Your task to perform on an android device: turn on javascript in the chrome app Image 0: 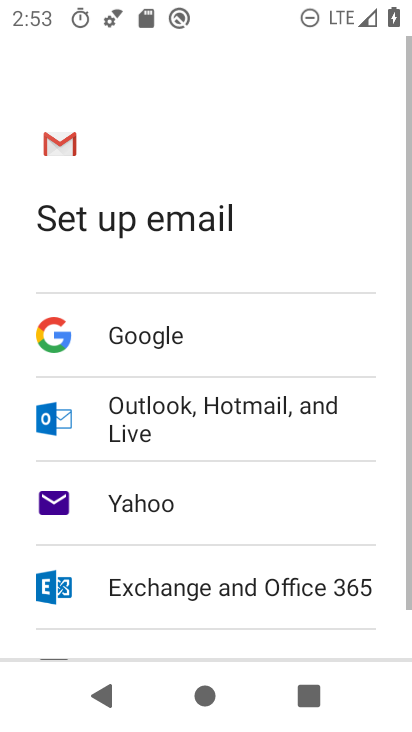
Step 0: press home button
Your task to perform on an android device: turn on javascript in the chrome app Image 1: 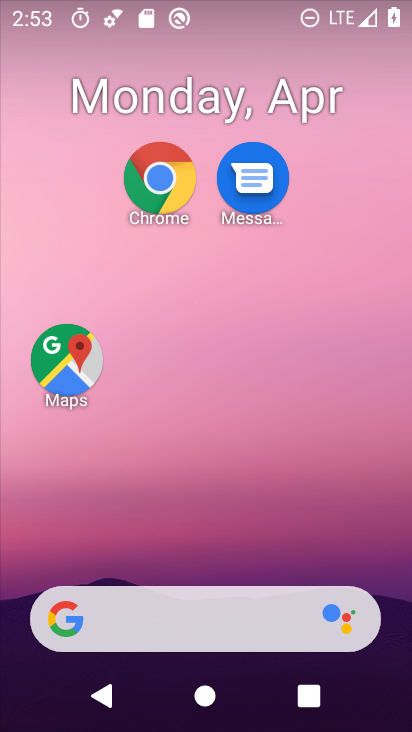
Step 1: drag from (313, 499) to (321, 78)
Your task to perform on an android device: turn on javascript in the chrome app Image 2: 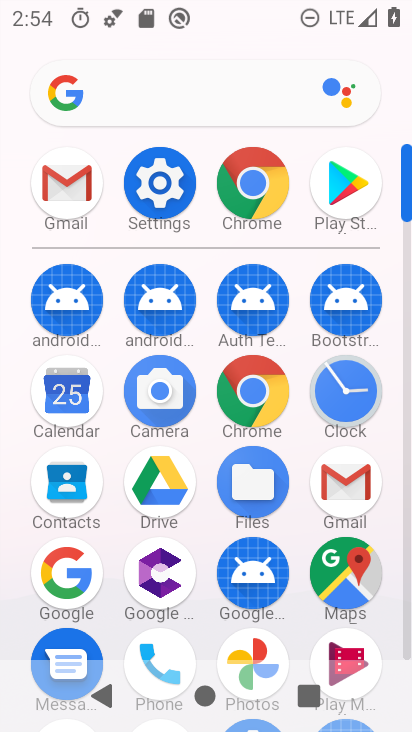
Step 2: click (261, 392)
Your task to perform on an android device: turn on javascript in the chrome app Image 3: 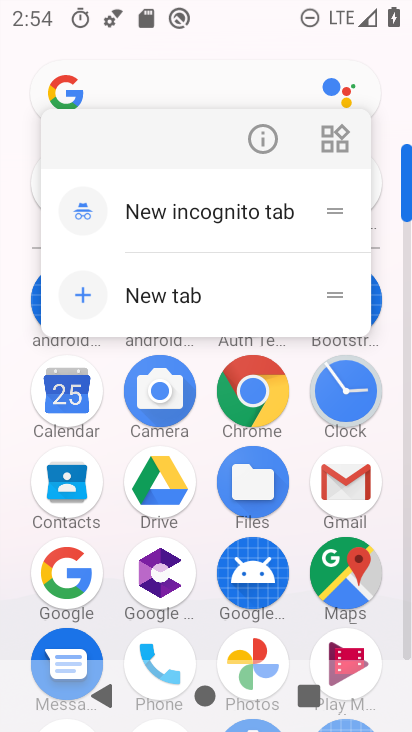
Step 3: click (251, 398)
Your task to perform on an android device: turn on javascript in the chrome app Image 4: 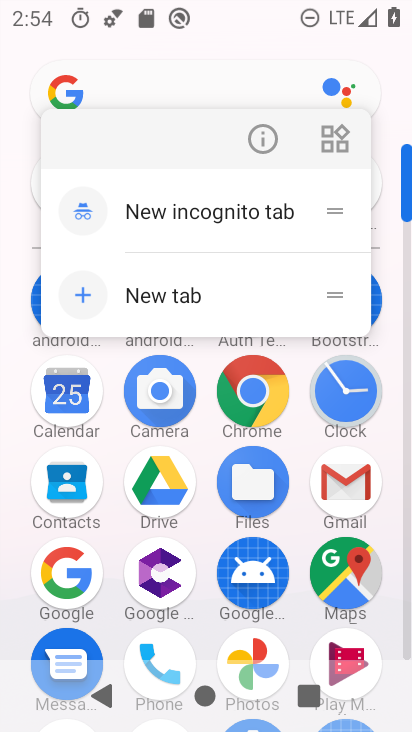
Step 4: click (271, 396)
Your task to perform on an android device: turn on javascript in the chrome app Image 5: 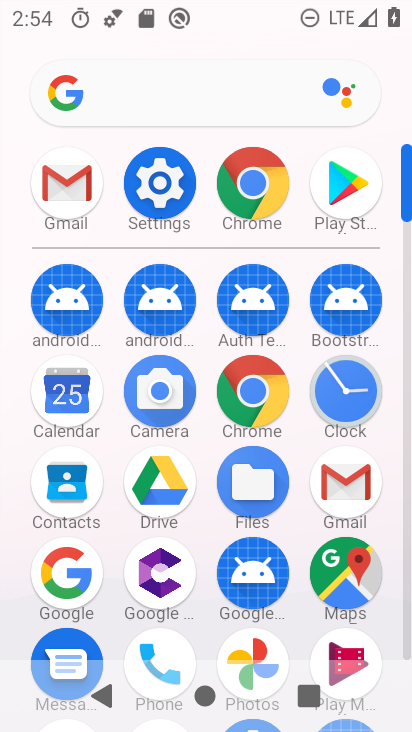
Step 5: click (263, 405)
Your task to perform on an android device: turn on javascript in the chrome app Image 6: 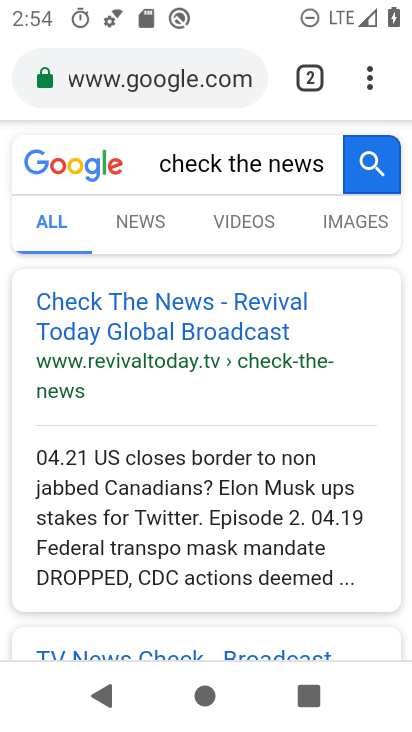
Step 6: drag from (374, 72) to (130, 553)
Your task to perform on an android device: turn on javascript in the chrome app Image 7: 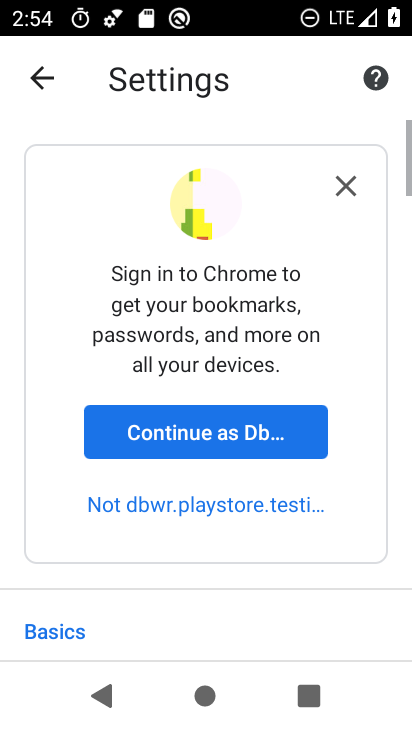
Step 7: drag from (250, 603) to (250, 19)
Your task to perform on an android device: turn on javascript in the chrome app Image 8: 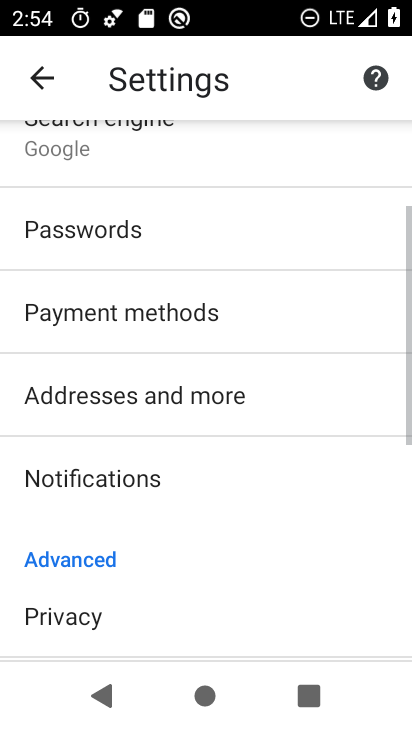
Step 8: drag from (172, 614) to (203, 142)
Your task to perform on an android device: turn on javascript in the chrome app Image 9: 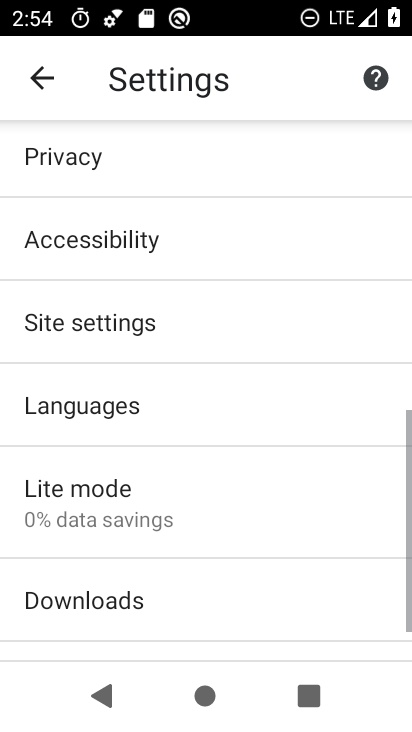
Step 9: click (165, 336)
Your task to perform on an android device: turn on javascript in the chrome app Image 10: 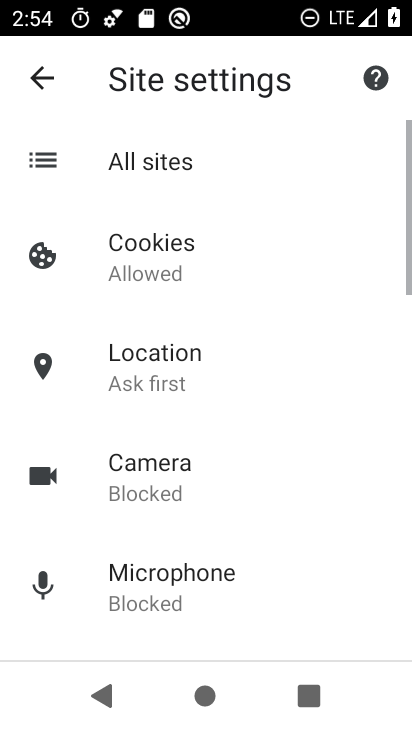
Step 10: drag from (248, 548) to (239, 60)
Your task to perform on an android device: turn on javascript in the chrome app Image 11: 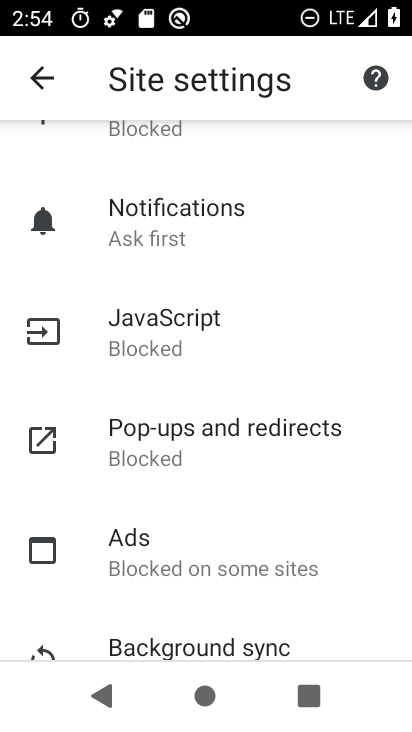
Step 11: click (214, 336)
Your task to perform on an android device: turn on javascript in the chrome app Image 12: 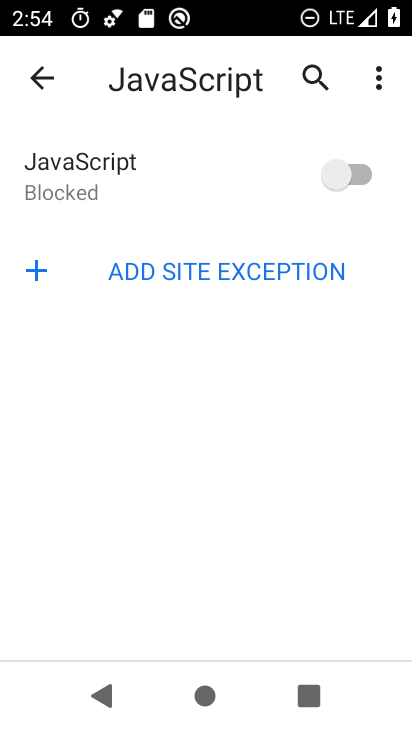
Step 12: task complete